Your task to perform on an android device: Open calendar and show me the second week of next month Image 0: 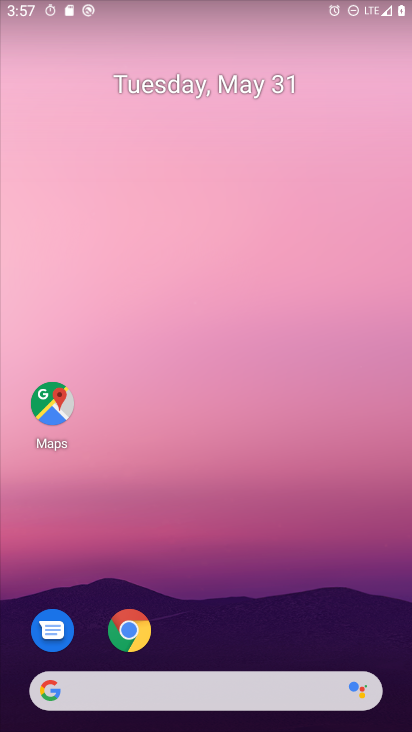
Step 0: drag from (294, 699) to (332, 19)
Your task to perform on an android device: Open calendar and show me the second week of next month Image 1: 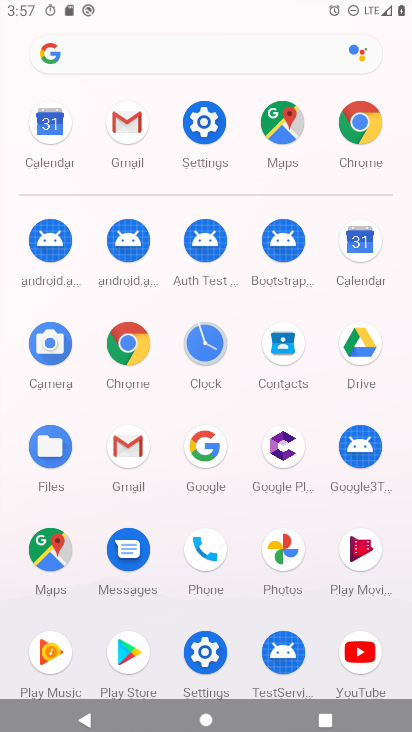
Step 1: click (359, 237)
Your task to perform on an android device: Open calendar and show me the second week of next month Image 2: 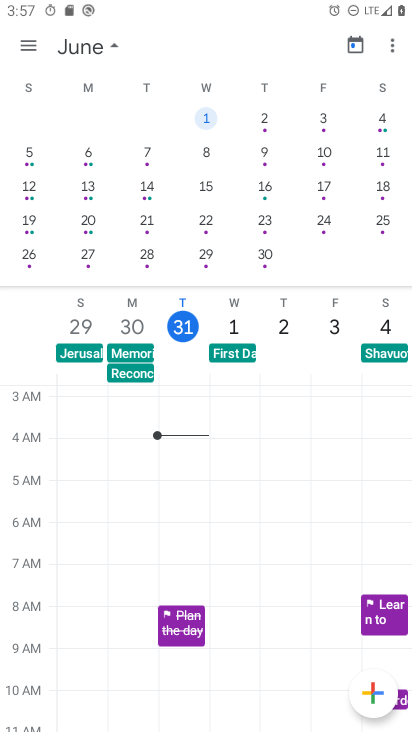
Step 2: click (200, 148)
Your task to perform on an android device: Open calendar and show me the second week of next month Image 3: 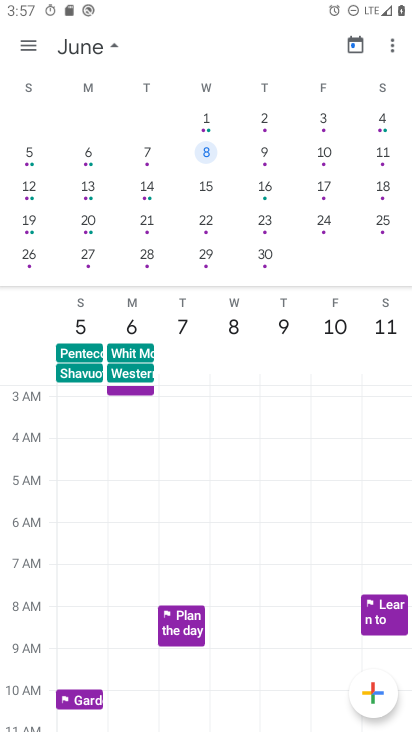
Step 3: task complete